Your task to perform on an android device: toggle improve location accuracy Image 0: 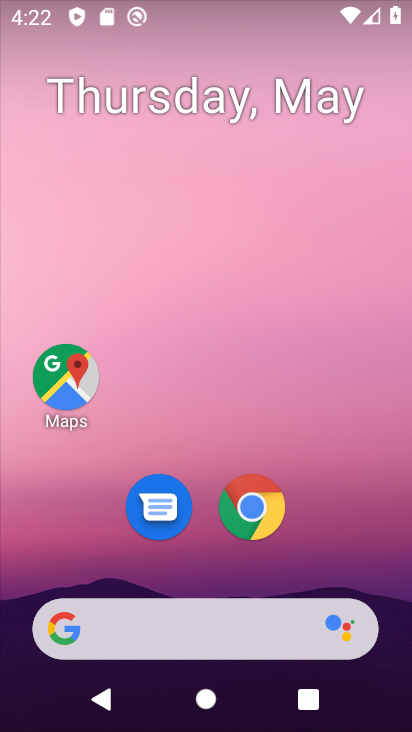
Step 0: drag from (367, 644) to (184, 113)
Your task to perform on an android device: toggle improve location accuracy Image 1: 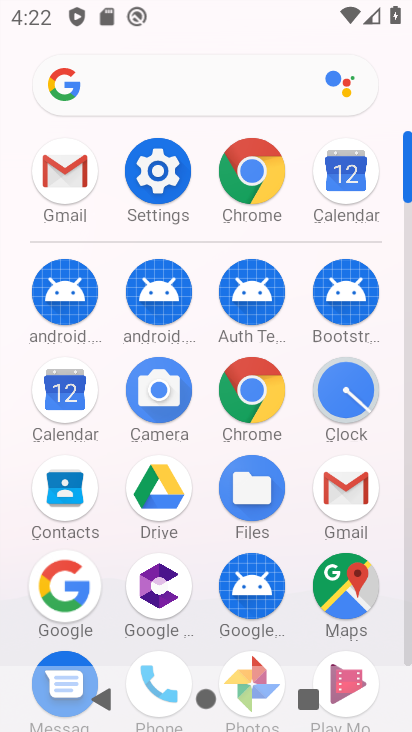
Step 1: click (145, 176)
Your task to perform on an android device: toggle improve location accuracy Image 2: 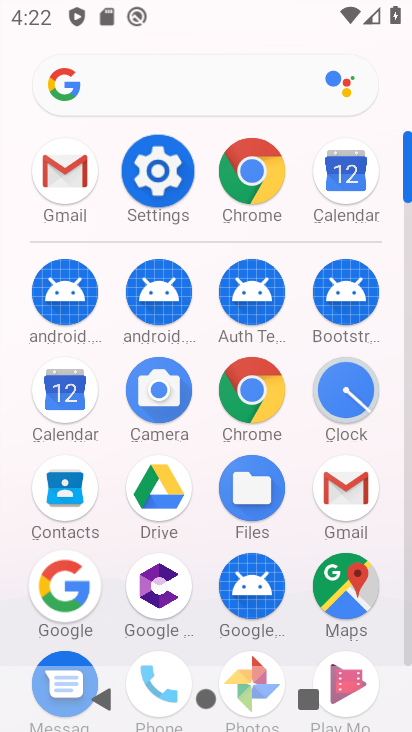
Step 2: click (145, 176)
Your task to perform on an android device: toggle improve location accuracy Image 3: 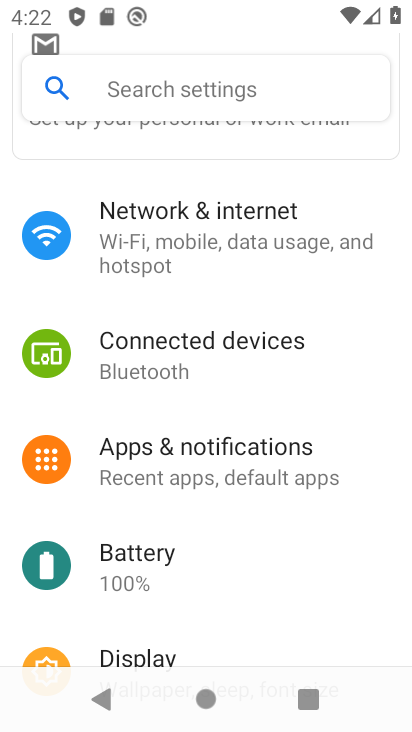
Step 3: click (192, 307)
Your task to perform on an android device: toggle improve location accuracy Image 4: 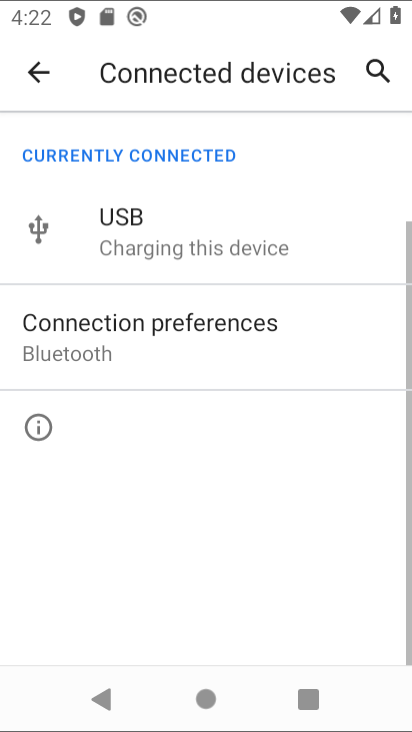
Step 4: click (189, 460)
Your task to perform on an android device: toggle improve location accuracy Image 5: 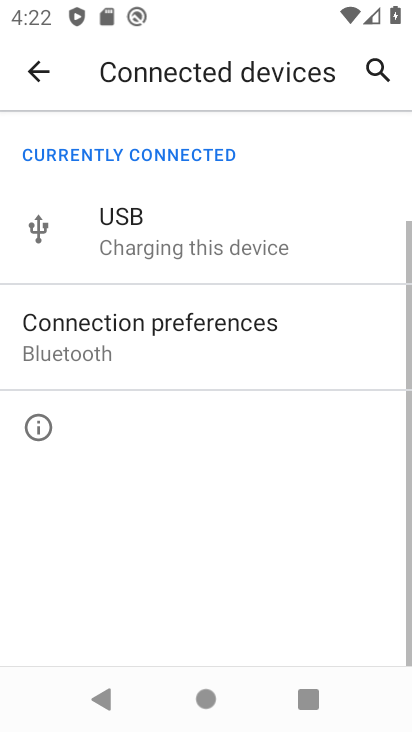
Step 5: click (189, 460)
Your task to perform on an android device: toggle improve location accuracy Image 6: 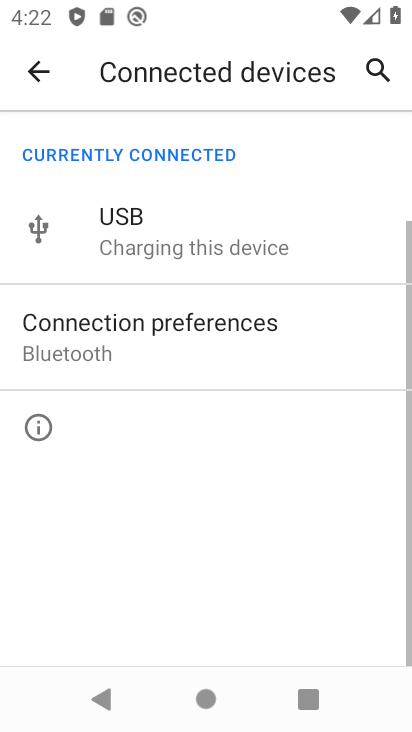
Step 6: click (23, 64)
Your task to perform on an android device: toggle improve location accuracy Image 7: 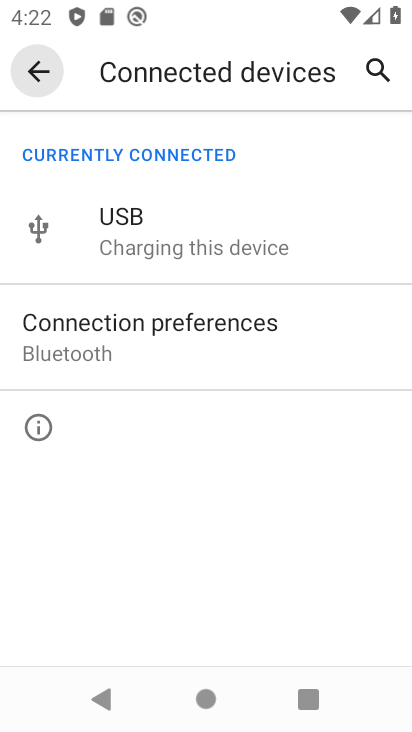
Step 7: click (40, 68)
Your task to perform on an android device: toggle improve location accuracy Image 8: 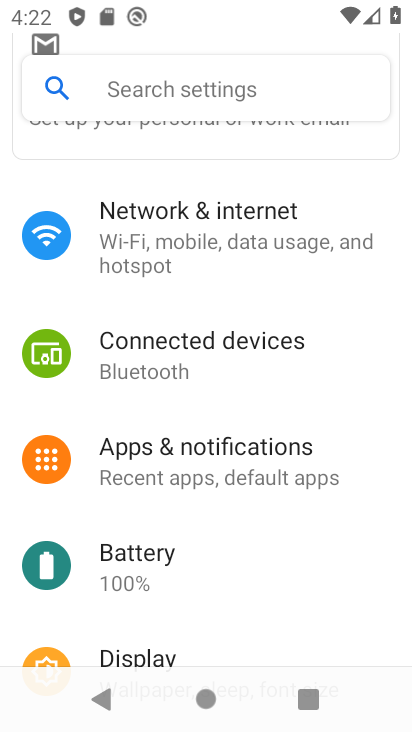
Step 8: click (175, 467)
Your task to perform on an android device: toggle improve location accuracy Image 9: 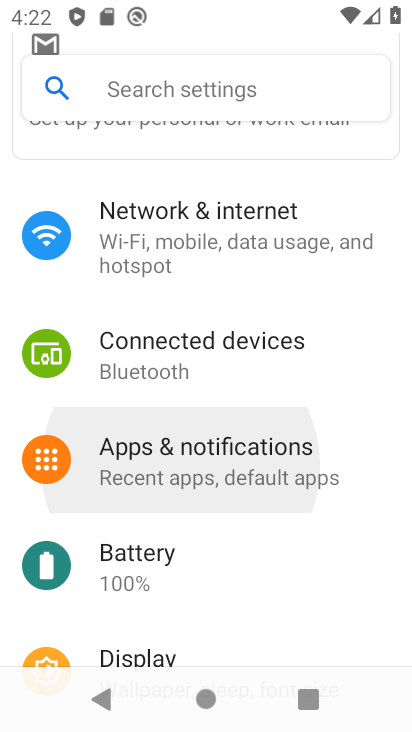
Step 9: click (176, 466)
Your task to perform on an android device: toggle improve location accuracy Image 10: 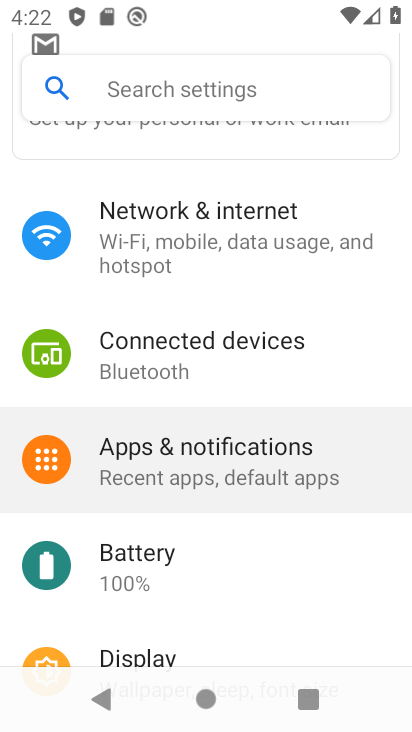
Step 10: click (176, 466)
Your task to perform on an android device: toggle improve location accuracy Image 11: 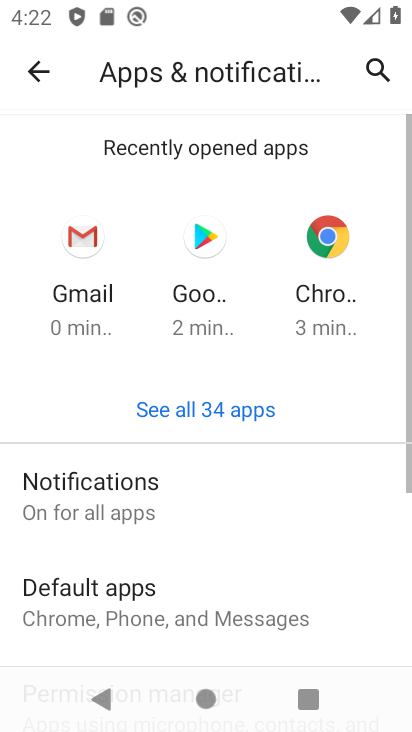
Step 11: drag from (207, 530) to (170, 152)
Your task to perform on an android device: toggle improve location accuracy Image 12: 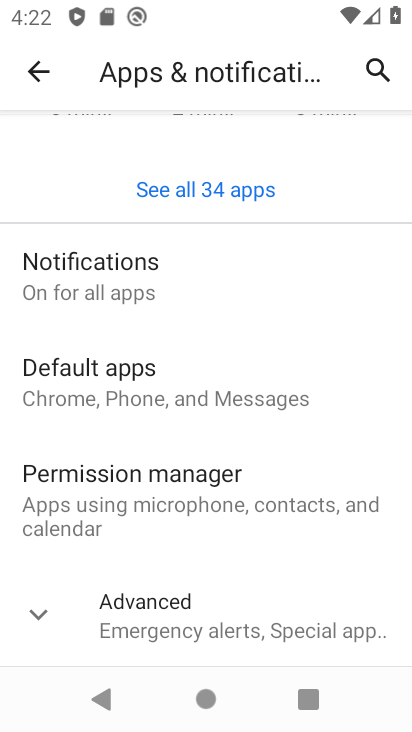
Step 12: click (65, 279)
Your task to perform on an android device: toggle improve location accuracy Image 13: 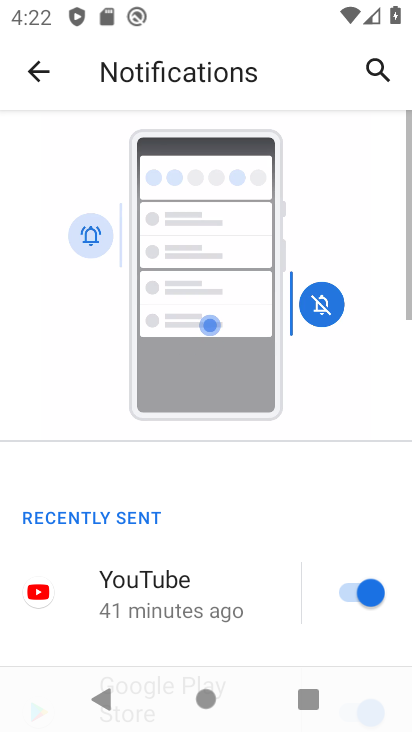
Step 13: drag from (216, 553) to (160, 124)
Your task to perform on an android device: toggle improve location accuracy Image 14: 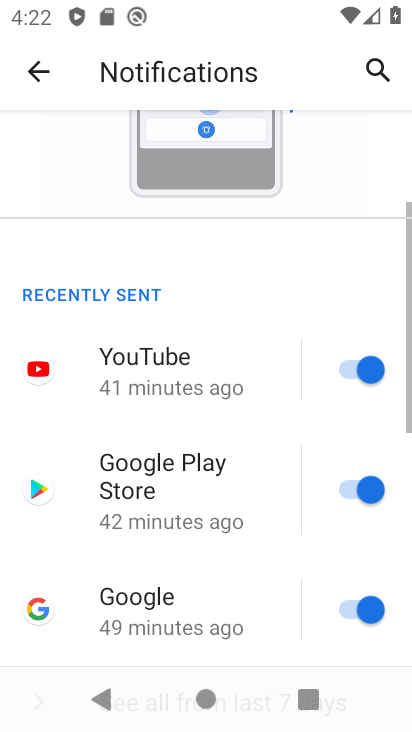
Step 14: drag from (259, 537) to (205, 140)
Your task to perform on an android device: toggle improve location accuracy Image 15: 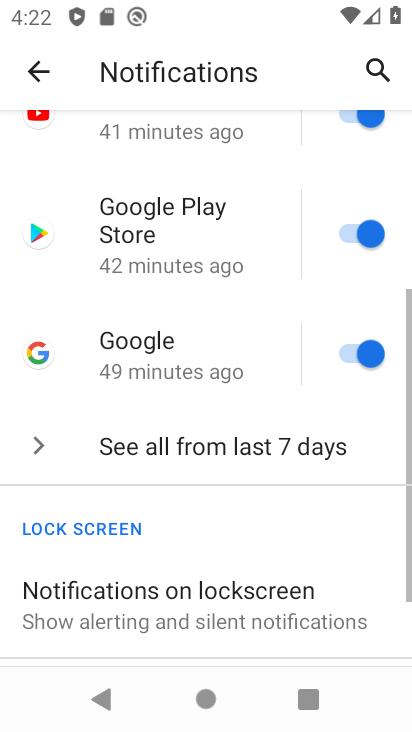
Step 15: drag from (178, 472) to (153, 141)
Your task to perform on an android device: toggle improve location accuracy Image 16: 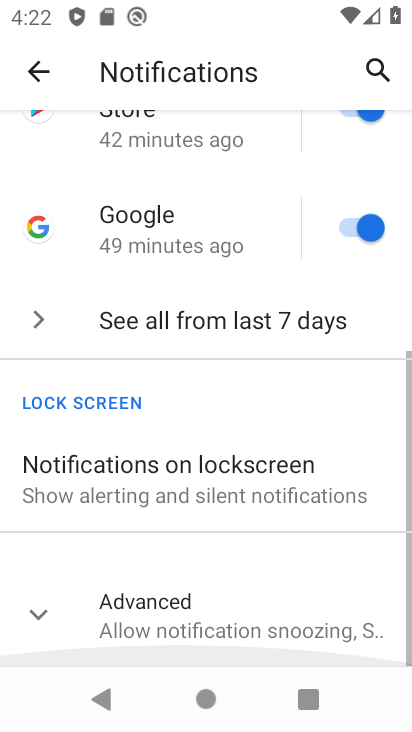
Step 16: drag from (161, 492) to (142, 200)
Your task to perform on an android device: toggle improve location accuracy Image 17: 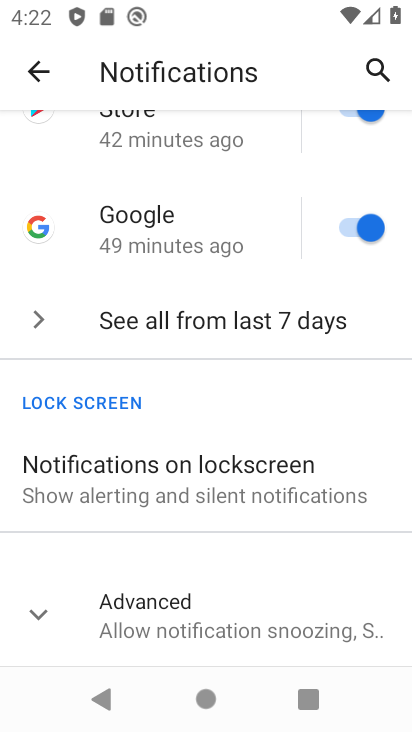
Step 17: click (164, 610)
Your task to perform on an android device: toggle improve location accuracy Image 18: 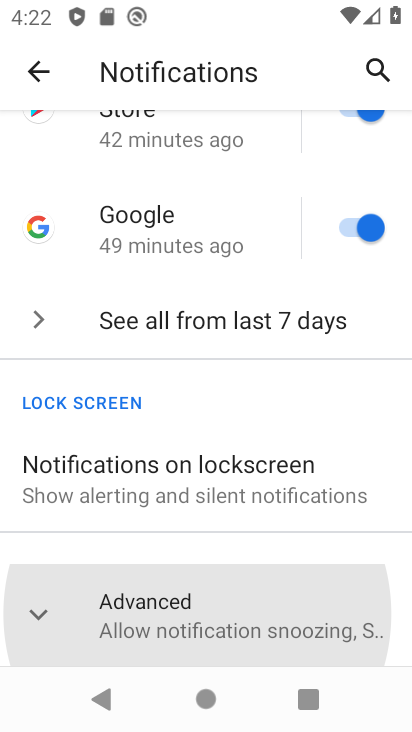
Step 18: click (162, 607)
Your task to perform on an android device: toggle improve location accuracy Image 19: 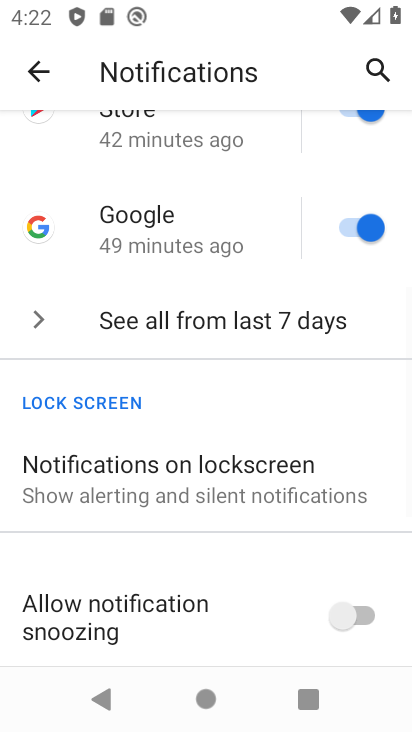
Step 19: drag from (218, 518) to (310, 255)
Your task to perform on an android device: toggle improve location accuracy Image 20: 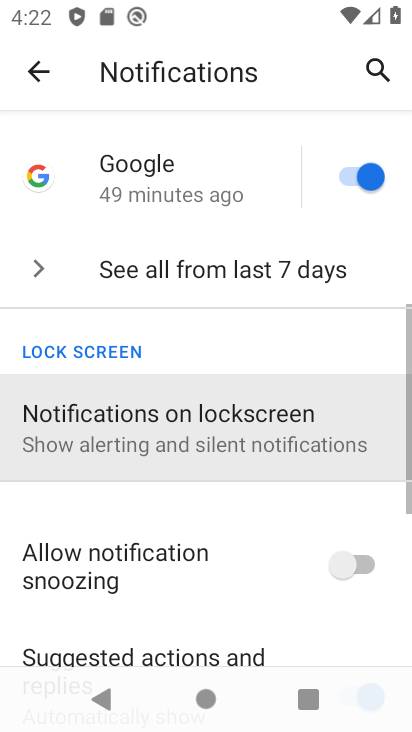
Step 20: drag from (255, 511) to (208, 156)
Your task to perform on an android device: toggle improve location accuracy Image 21: 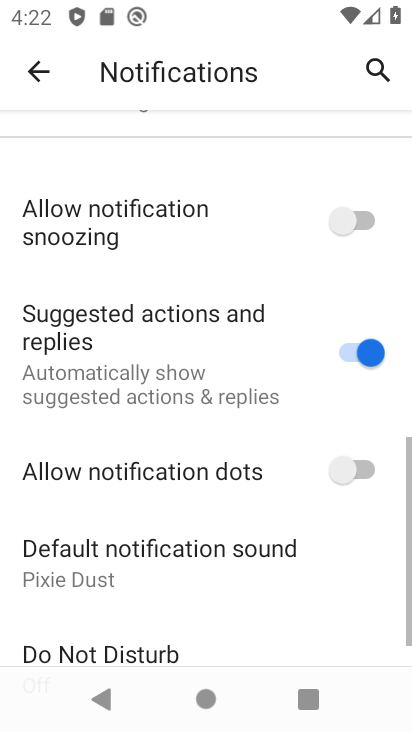
Step 21: drag from (148, 404) to (136, 89)
Your task to perform on an android device: toggle improve location accuracy Image 22: 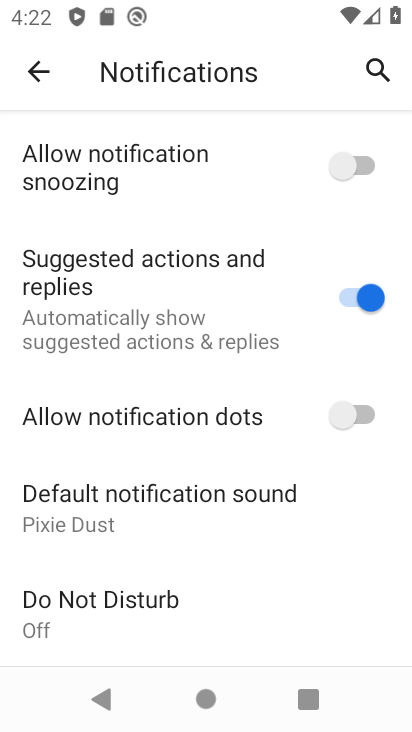
Step 22: press back button
Your task to perform on an android device: toggle improve location accuracy Image 23: 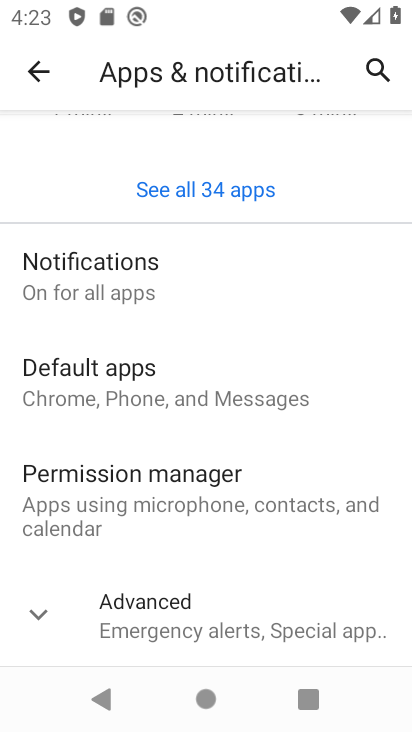
Step 23: click (34, 68)
Your task to perform on an android device: toggle improve location accuracy Image 24: 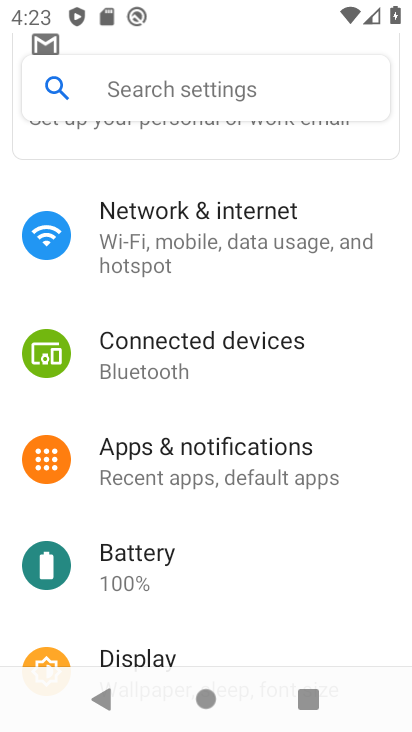
Step 24: drag from (197, 555) to (200, 158)
Your task to perform on an android device: toggle improve location accuracy Image 25: 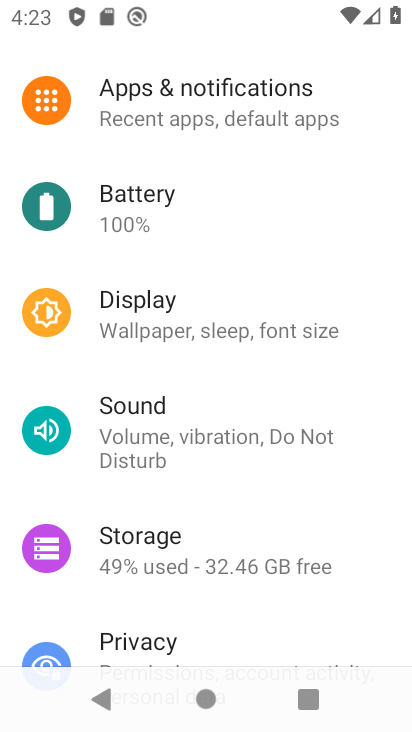
Step 25: drag from (248, 543) to (206, 80)
Your task to perform on an android device: toggle improve location accuracy Image 26: 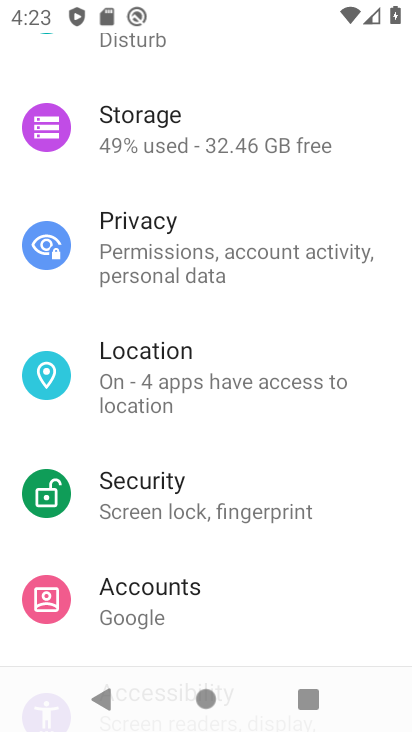
Step 26: click (152, 376)
Your task to perform on an android device: toggle improve location accuracy Image 27: 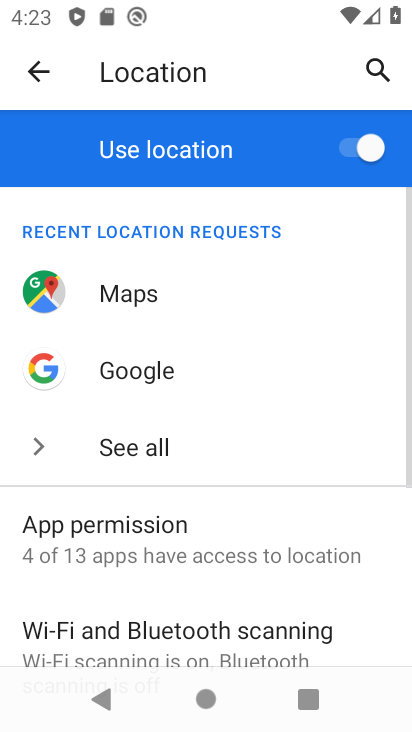
Step 27: drag from (206, 518) to (180, 182)
Your task to perform on an android device: toggle improve location accuracy Image 28: 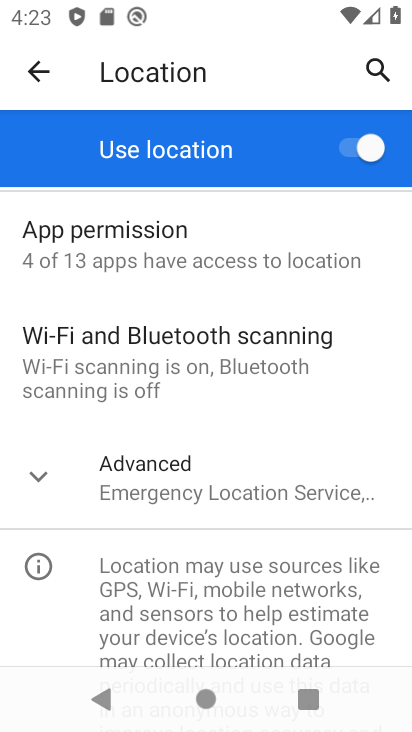
Step 28: click (174, 481)
Your task to perform on an android device: toggle improve location accuracy Image 29: 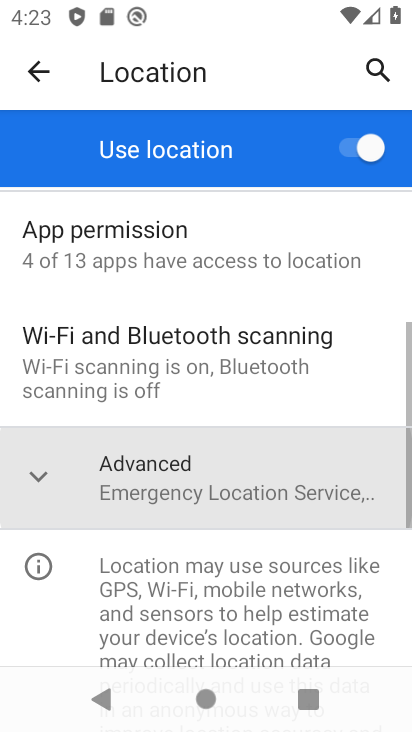
Step 29: click (174, 481)
Your task to perform on an android device: toggle improve location accuracy Image 30: 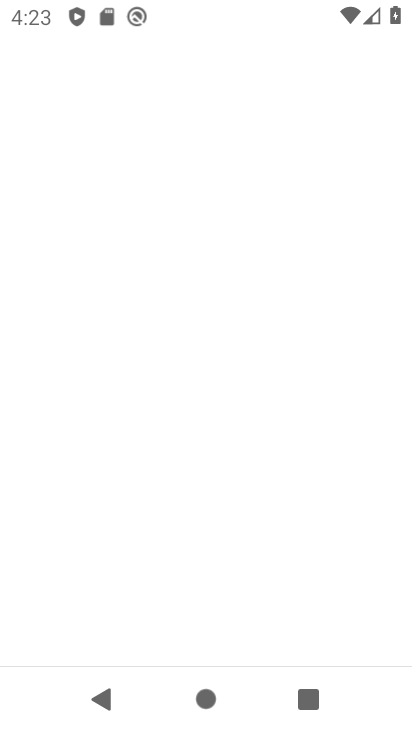
Step 30: drag from (172, 537) to (112, 170)
Your task to perform on an android device: toggle improve location accuracy Image 31: 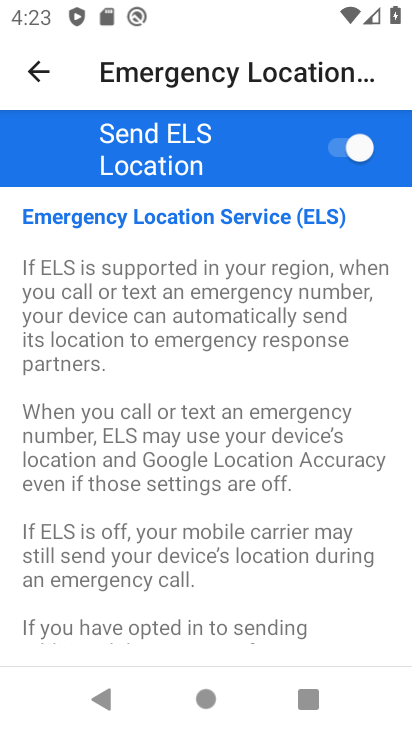
Step 31: click (31, 65)
Your task to perform on an android device: toggle improve location accuracy Image 32: 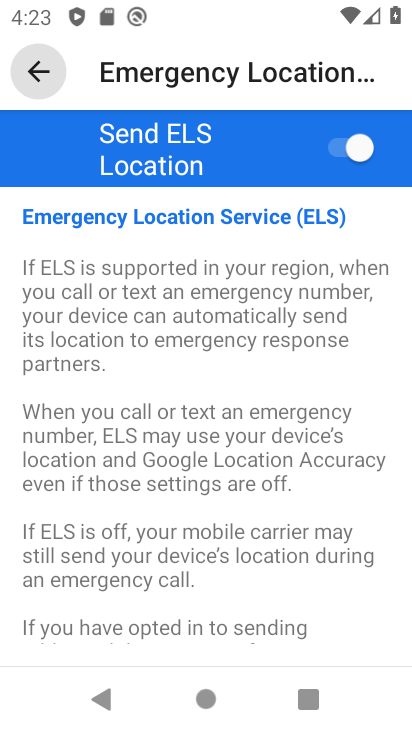
Step 32: click (31, 65)
Your task to perform on an android device: toggle improve location accuracy Image 33: 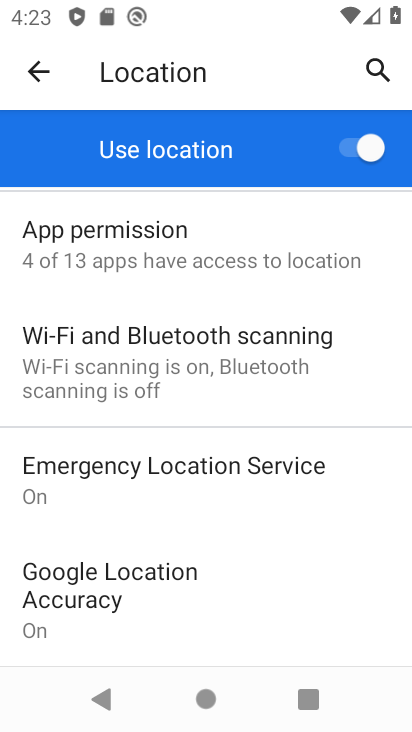
Step 33: drag from (137, 567) to (119, 299)
Your task to perform on an android device: toggle improve location accuracy Image 34: 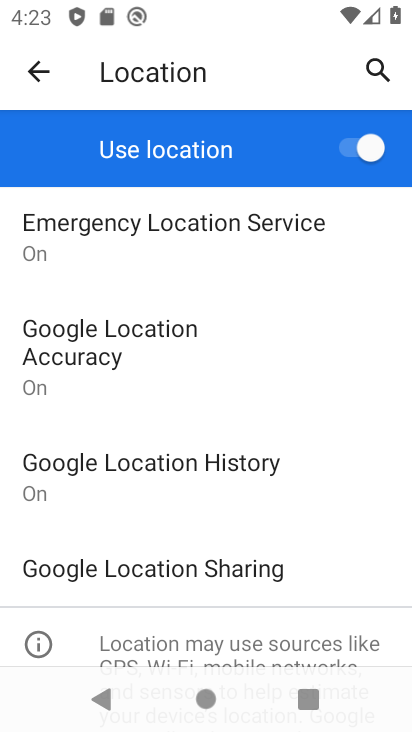
Step 34: click (52, 361)
Your task to perform on an android device: toggle improve location accuracy Image 35: 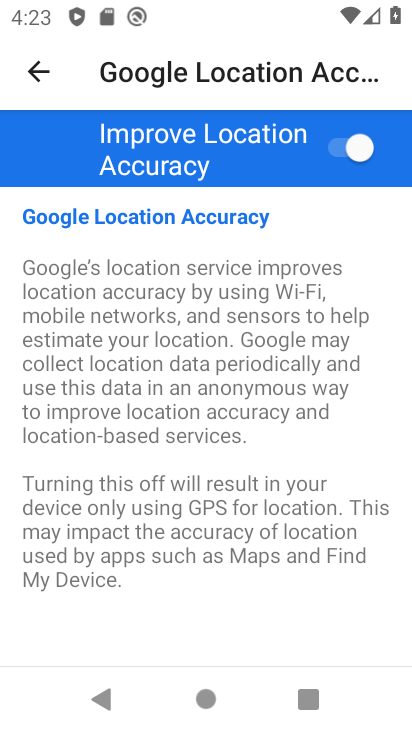
Step 35: task complete